Your task to perform on an android device: Open the stopwatch Image 0: 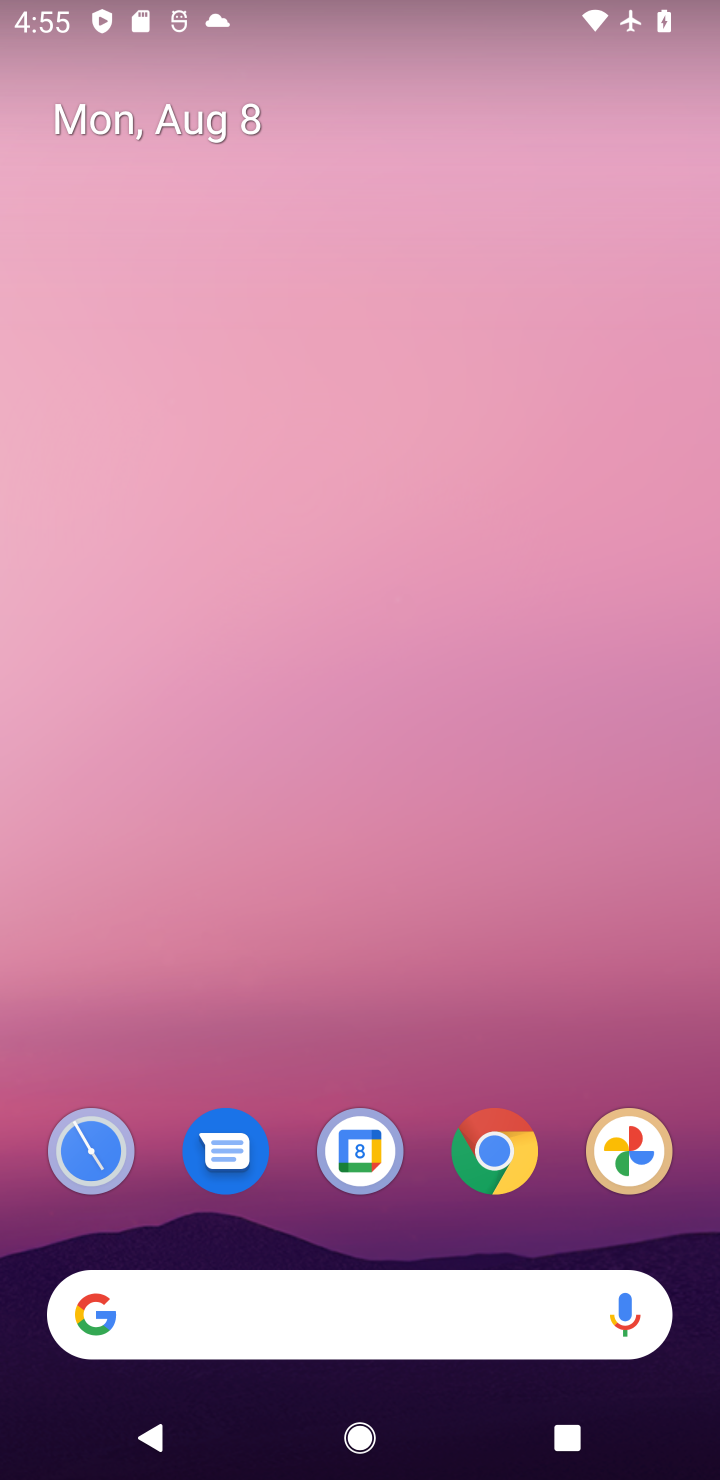
Step 0: click (72, 1129)
Your task to perform on an android device: Open the stopwatch Image 1: 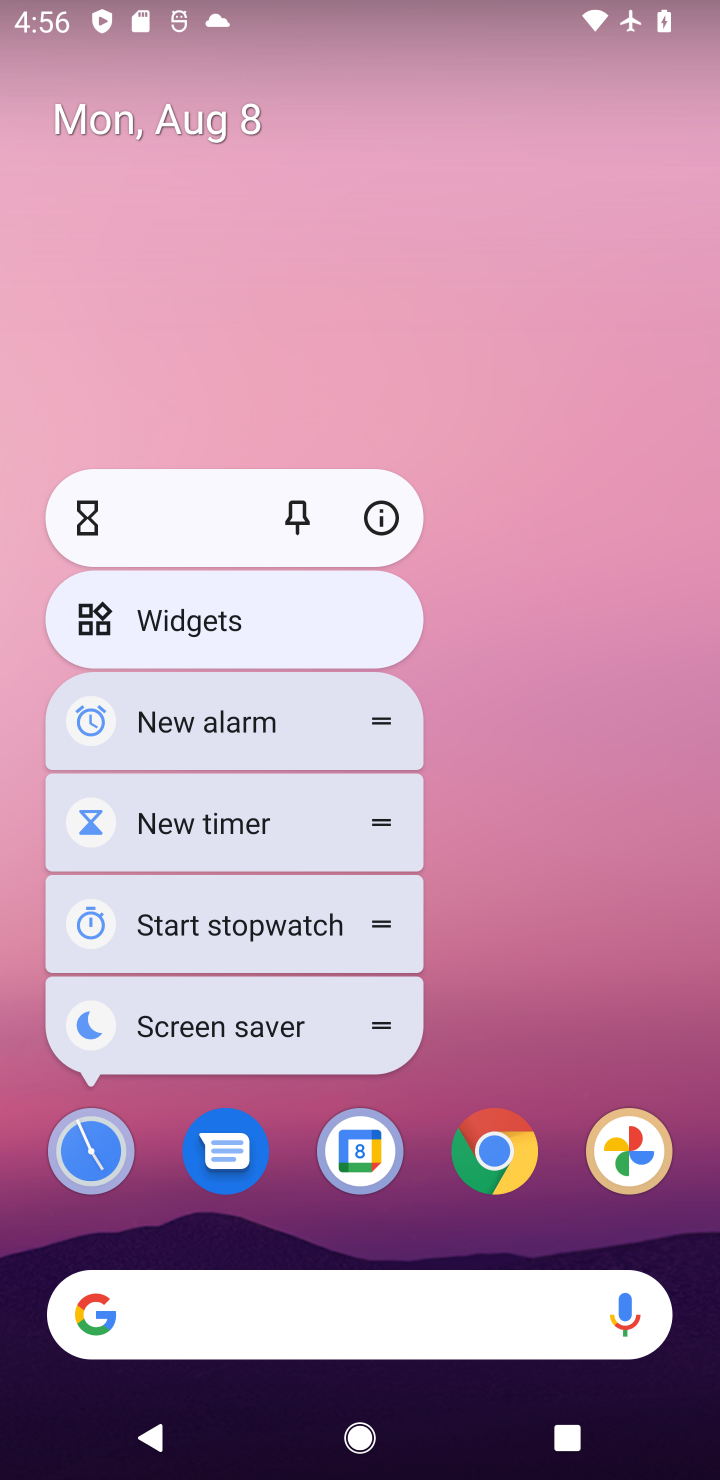
Step 1: click (369, 524)
Your task to perform on an android device: Open the stopwatch Image 2: 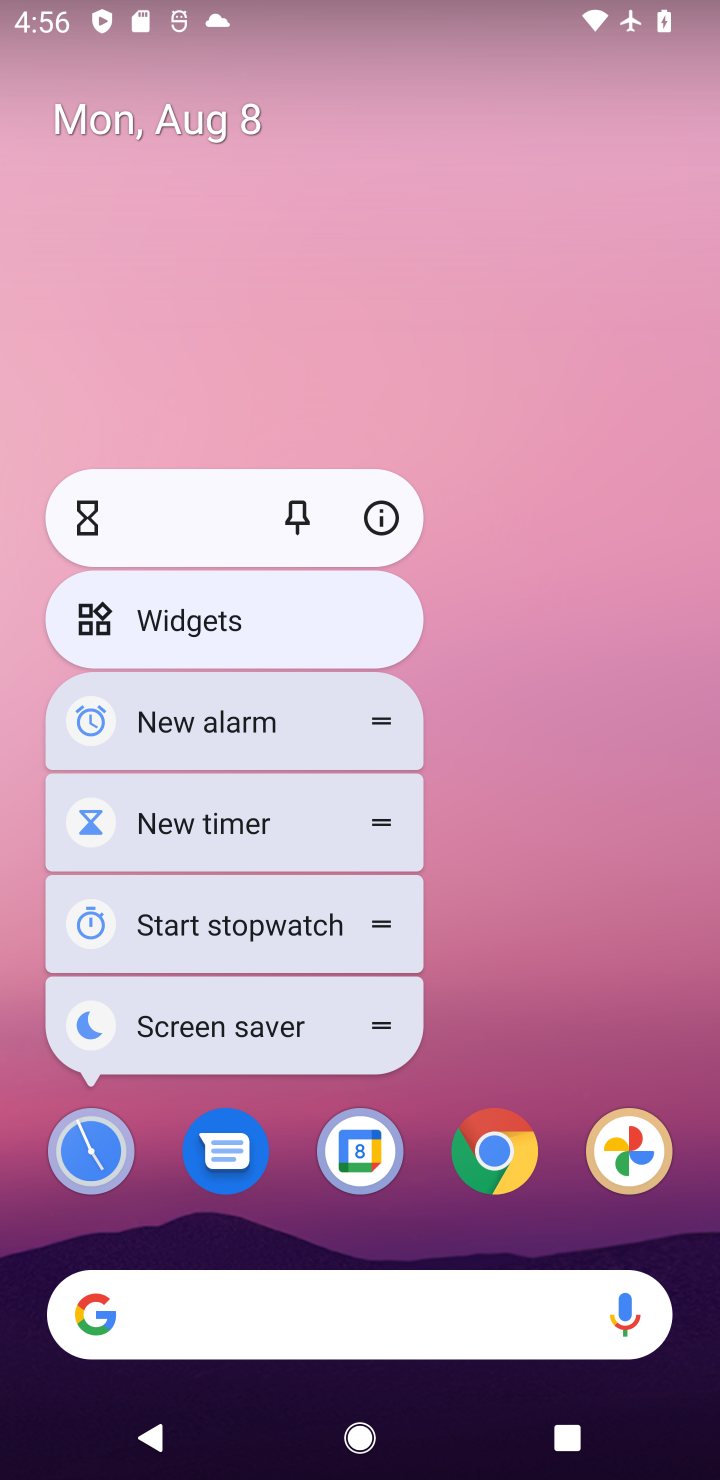
Step 2: click (554, 418)
Your task to perform on an android device: Open the stopwatch Image 3: 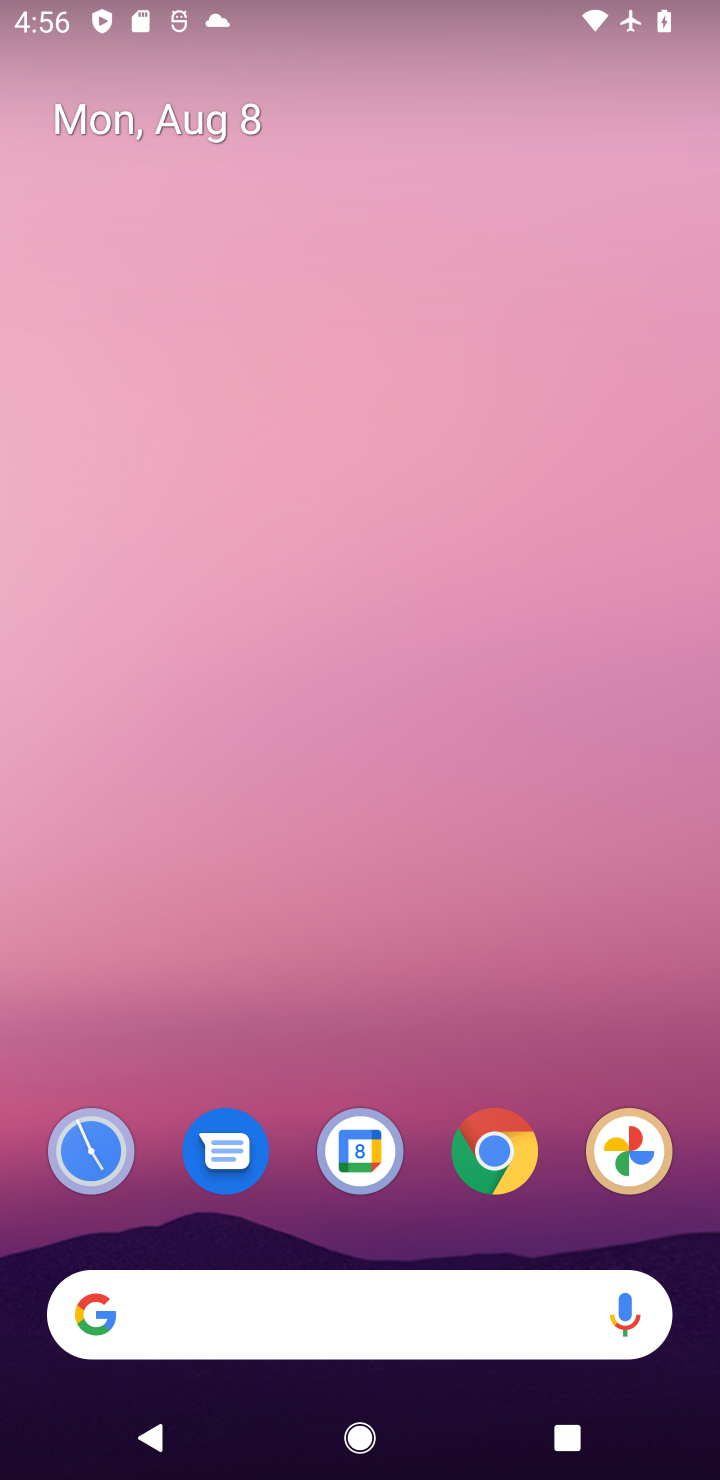
Step 3: click (73, 1123)
Your task to perform on an android device: Open the stopwatch Image 4: 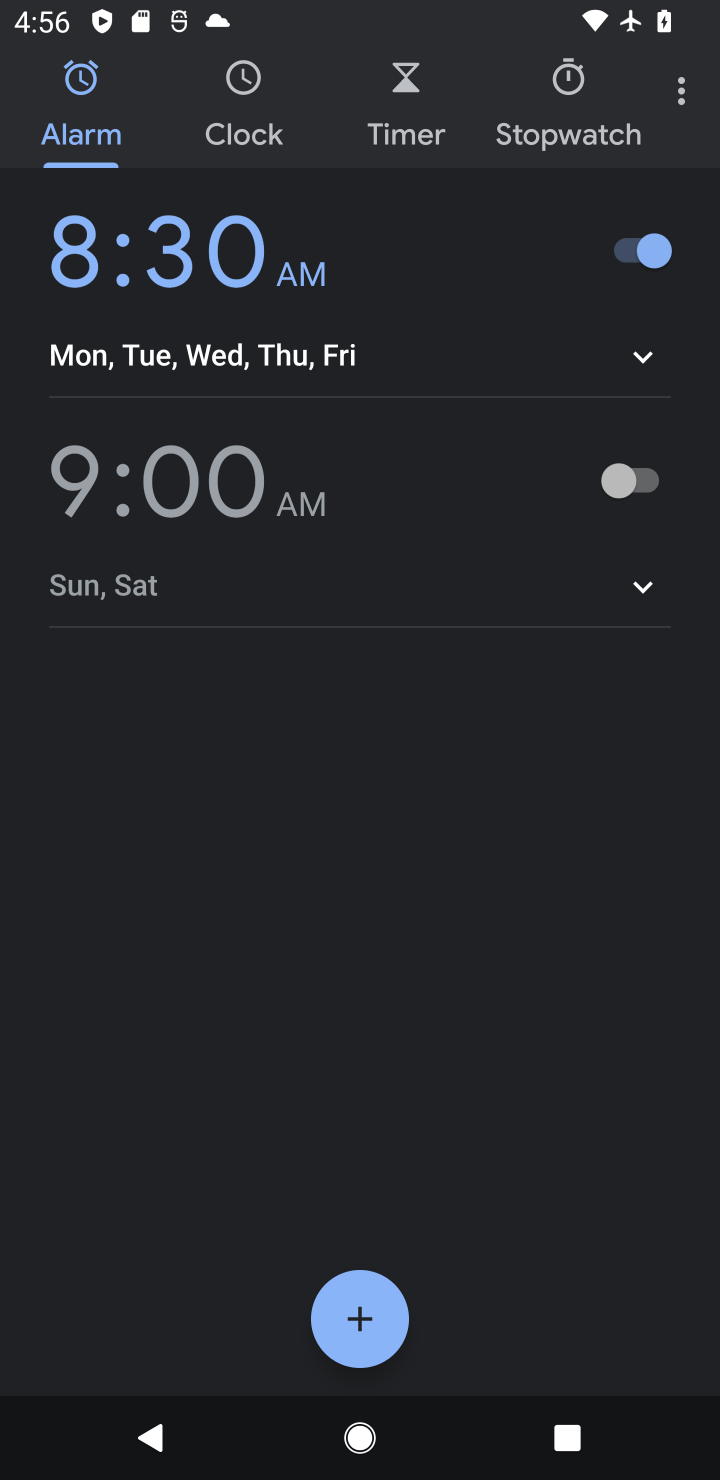
Step 4: click (571, 105)
Your task to perform on an android device: Open the stopwatch Image 5: 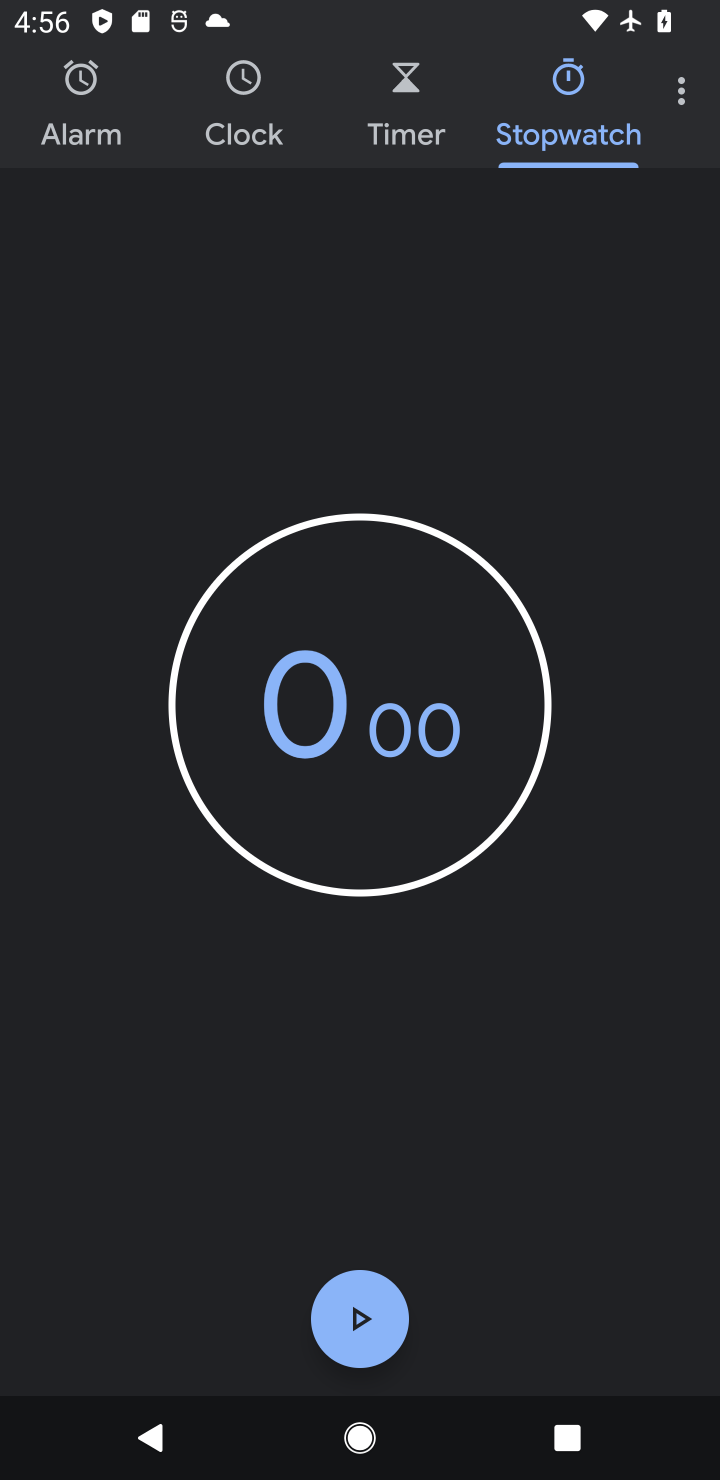
Step 5: task complete